Your task to perform on an android device: Open Google Chrome and open the bookmarks view Image 0: 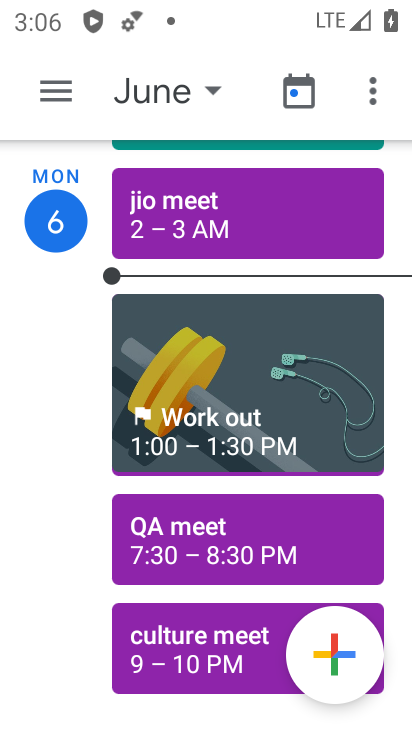
Step 0: press back button
Your task to perform on an android device: Open Google Chrome and open the bookmarks view Image 1: 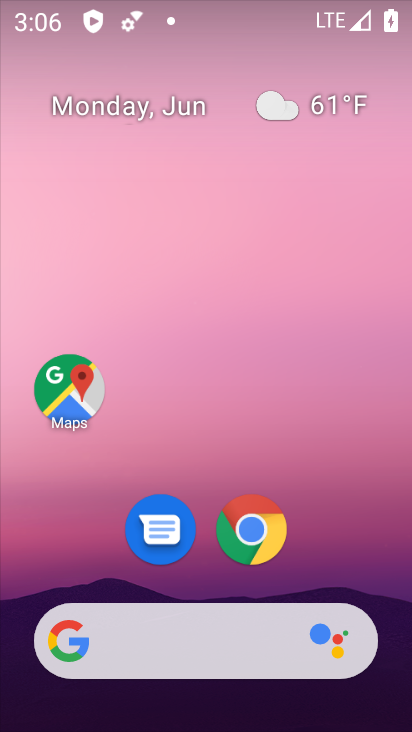
Step 1: drag from (170, 511) to (157, 161)
Your task to perform on an android device: Open Google Chrome and open the bookmarks view Image 2: 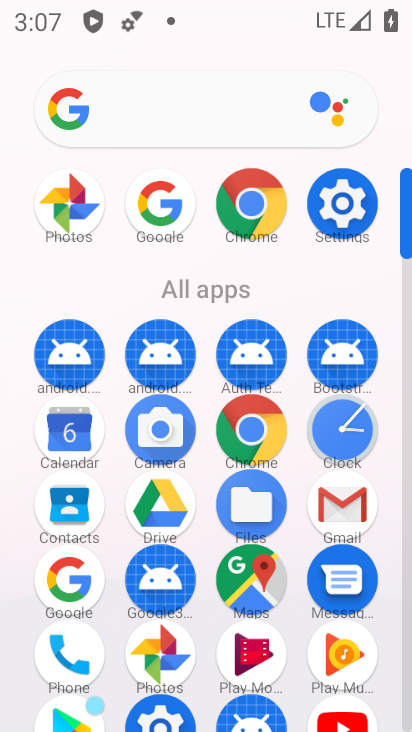
Step 2: click (265, 196)
Your task to perform on an android device: Open Google Chrome and open the bookmarks view Image 3: 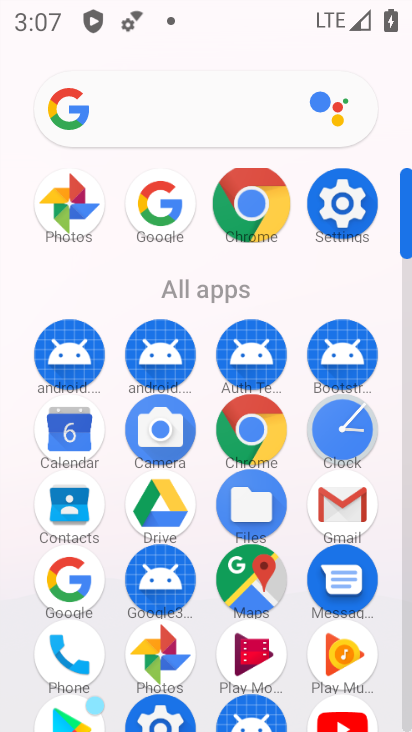
Step 3: click (257, 203)
Your task to perform on an android device: Open Google Chrome and open the bookmarks view Image 4: 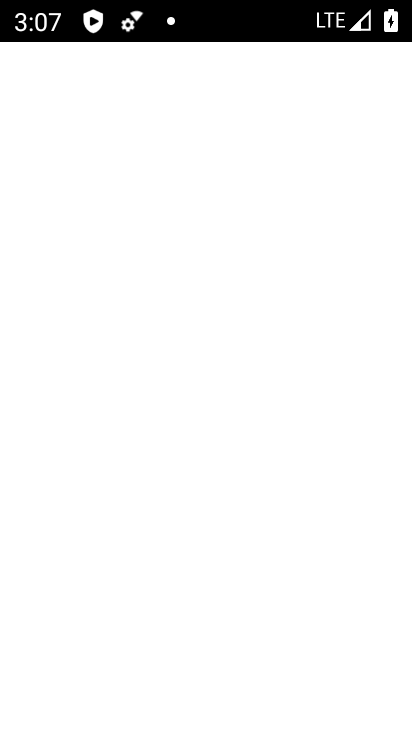
Step 4: click (255, 205)
Your task to perform on an android device: Open Google Chrome and open the bookmarks view Image 5: 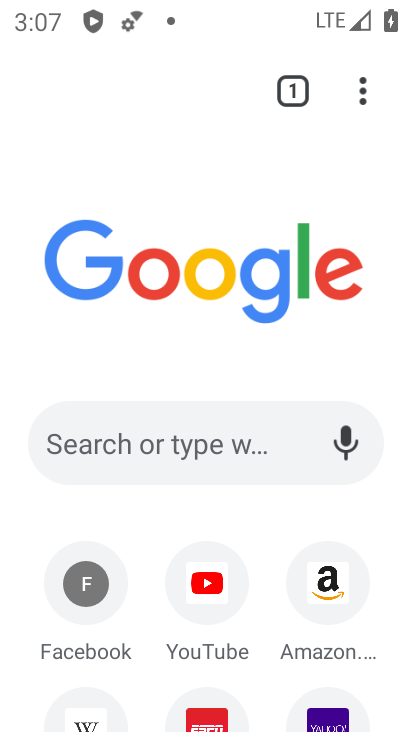
Step 5: drag from (358, 97) to (56, 176)
Your task to perform on an android device: Open Google Chrome and open the bookmarks view Image 6: 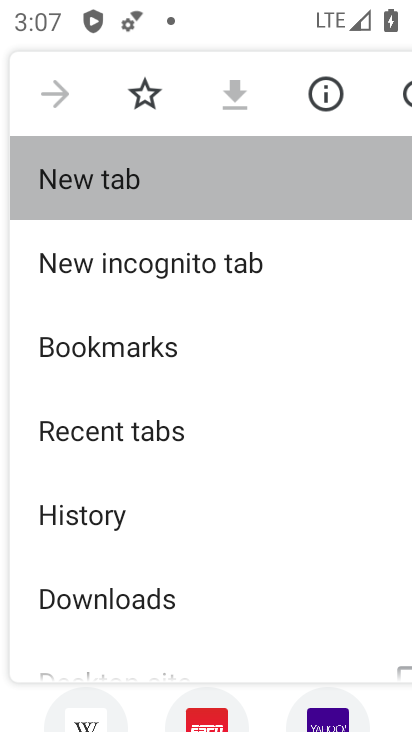
Step 6: drag from (56, 176) to (93, 370)
Your task to perform on an android device: Open Google Chrome and open the bookmarks view Image 7: 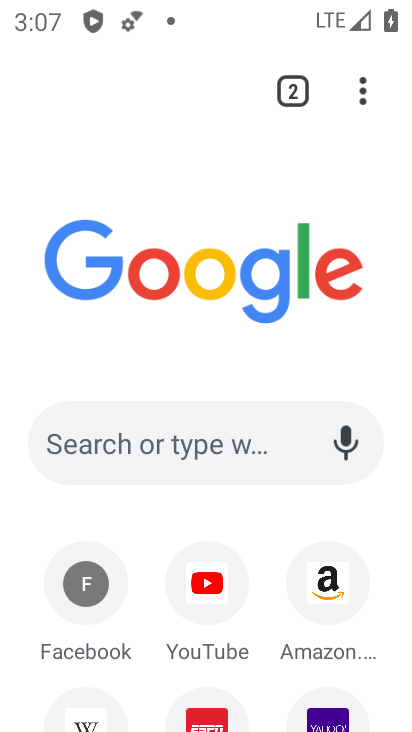
Step 7: click (358, 90)
Your task to perform on an android device: Open Google Chrome and open the bookmarks view Image 8: 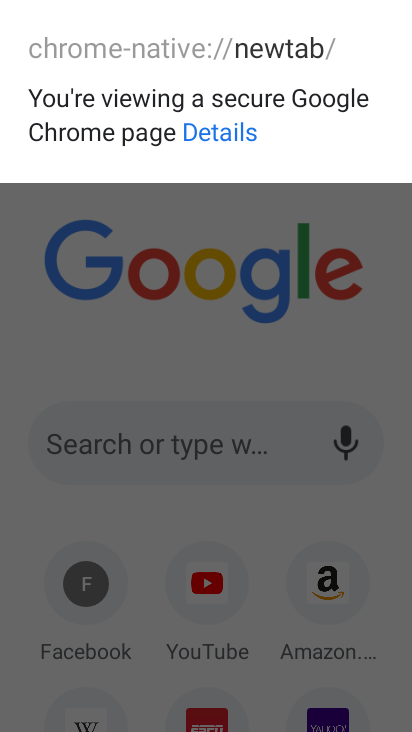
Step 8: click (345, 332)
Your task to perform on an android device: Open Google Chrome and open the bookmarks view Image 9: 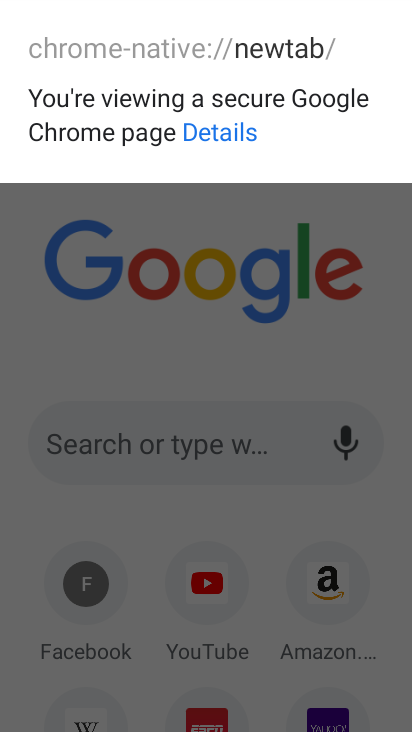
Step 9: click (349, 307)
Your task to perform on an android device: Open Google Chrome and open the bookmarks view Image 10: 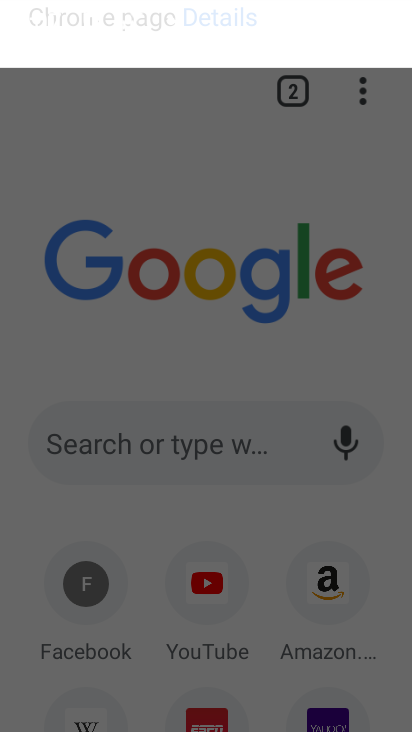
Step 10: click (349, 307)
Your task to perform on an android device: Open Google Chrome and open the bookmarks view Image 11: 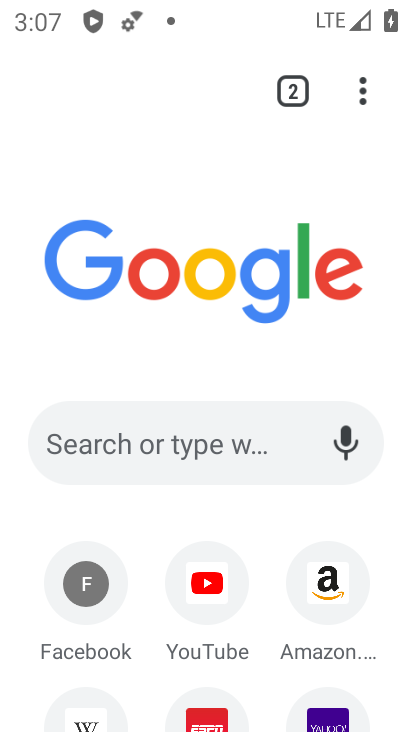
Step 11: click (350, 305)
Your task to perform on an android device: Open Google Chrome and open the bookmarks view Image 12: 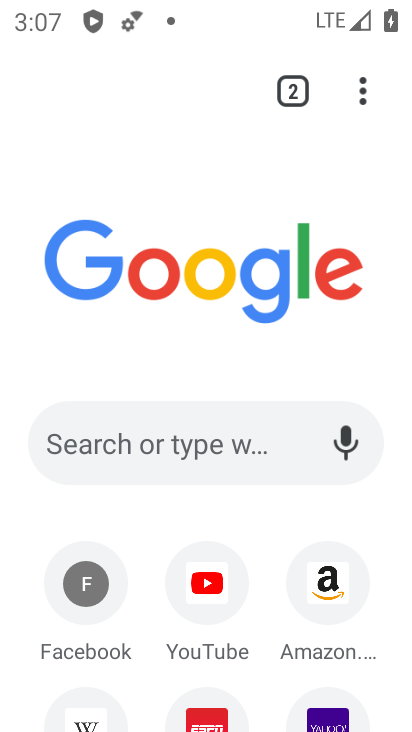
Step 12: click (358, 102)
Your task to perform on an android device: Open Google Chrome and open the bookmarks view Image 13: 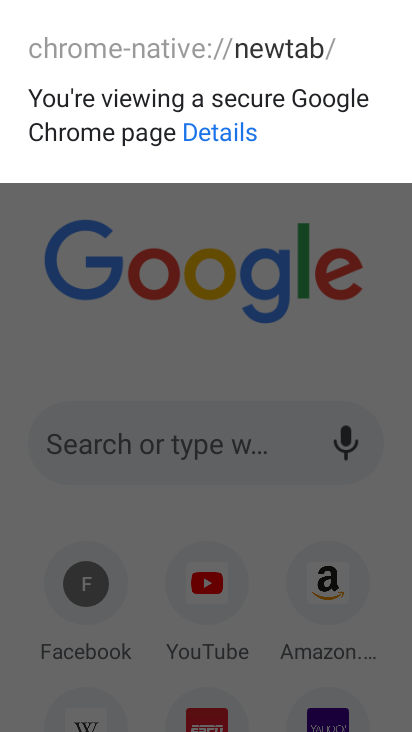
Step 13: click (332, 309)
Your task to perform on an android device: Open Google Chrome and open the bookmarks view Image 14: 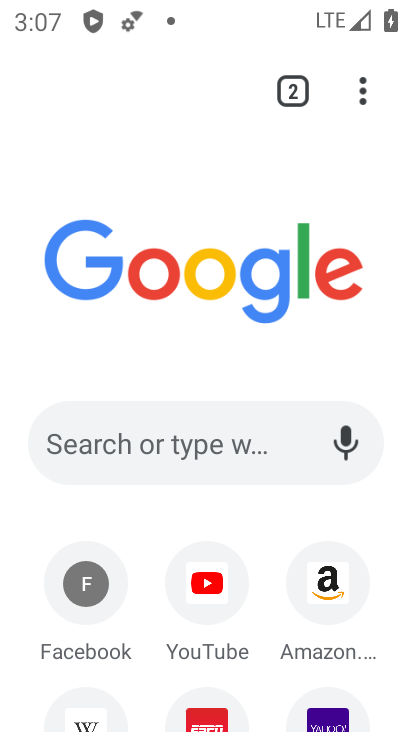
Step 14: drag from (365, 86) to (65, 347)
Your task to perform on an android device: Open Google Chrome and open the bookmarks view Image 15: 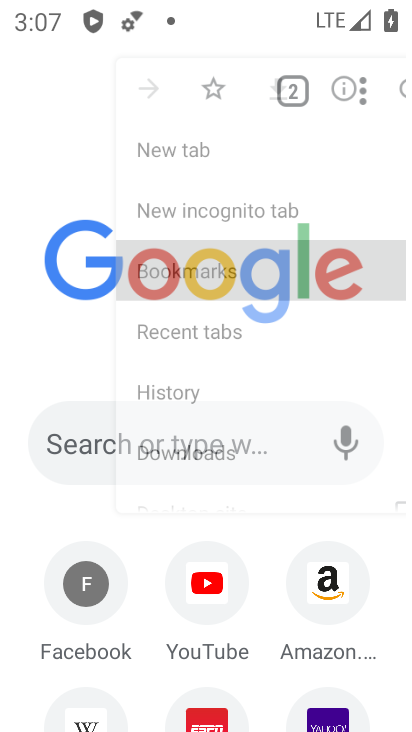
Step 15: click (65, 348)
Your task to perform on an android device: Open Google Chrome and open the bookmarks view Image 16: 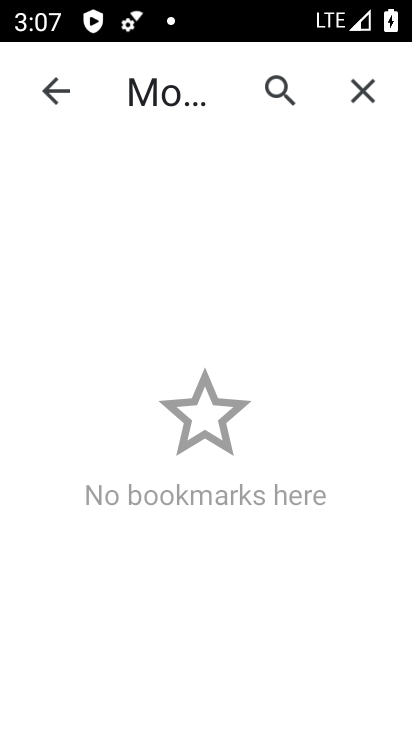
Step 16: task complete